Your task to perform on an android device: Search for Mexican restaurants on Maps Image 0: 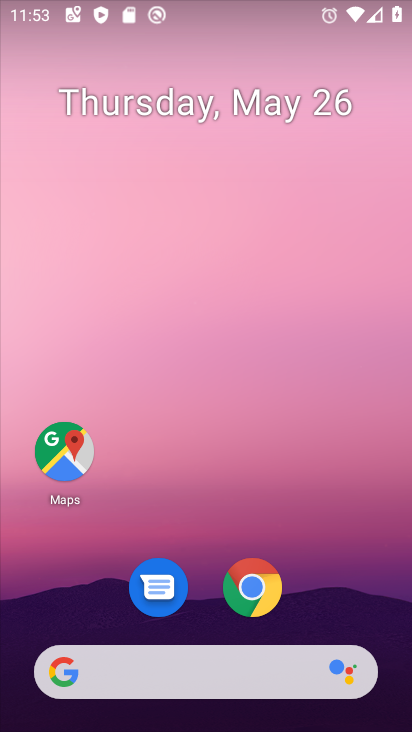
Step 0: drag from (289, 695) to (326, 91)
Your task to perform on an android device: Search for Mexican restaurants on Maps Image 1: 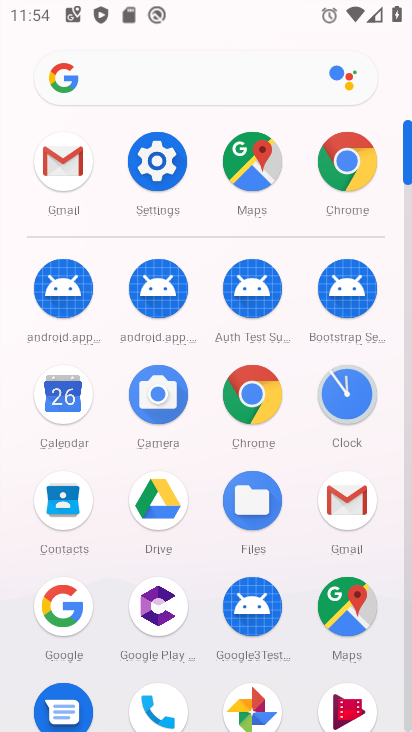
Step 1: click (252, 184)
Your task to perform on an android device: Search for Mexican restaurants on Maps Image 2: 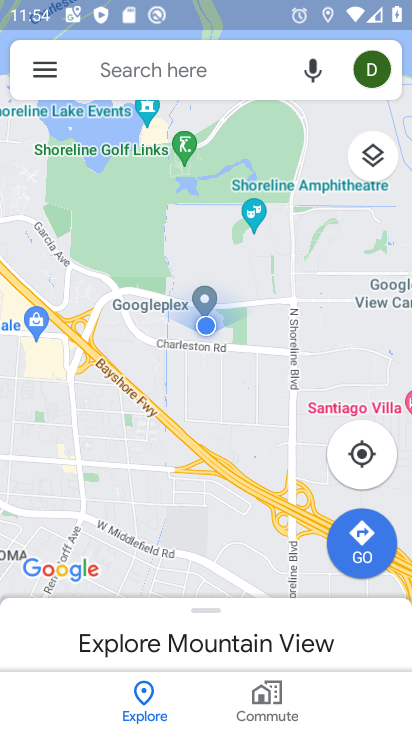
Step 2: click (173, 62)
Your task to perform on an android device: Search for Mexican restaurants on Maps Image 3: 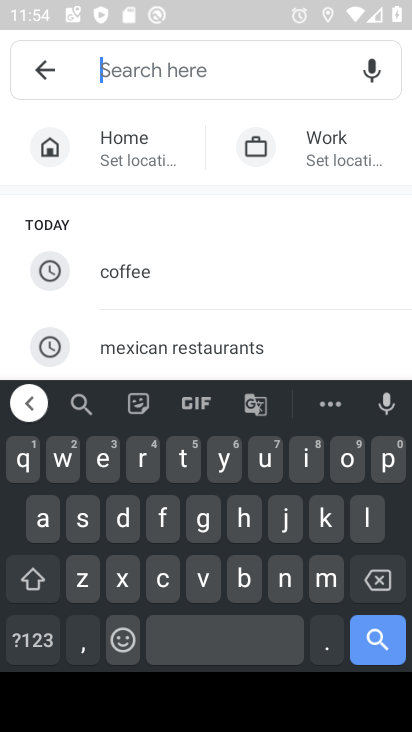
Step 3: click (229, 335)
Your task to perform on an android device: Search for Mexican restaurants on Maps Image 4: 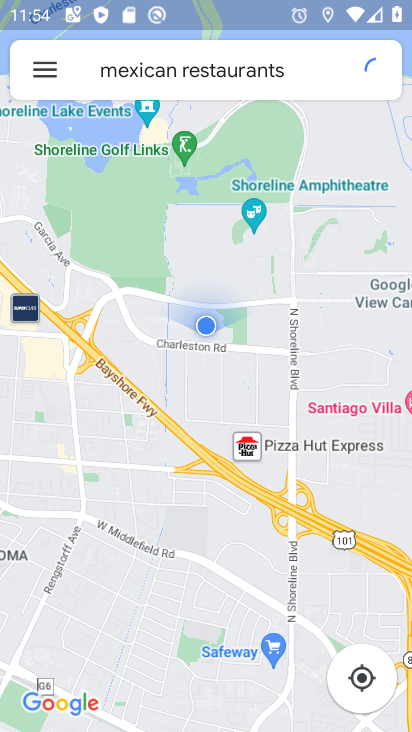
Step 4: task complete